Your task to perform on an android device: turn off location Image 0: 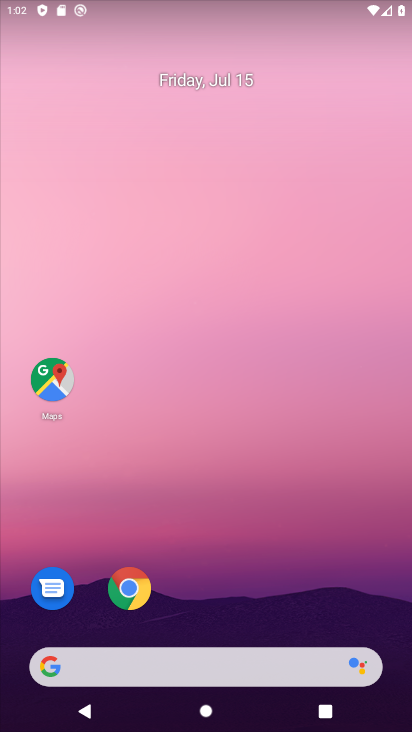
Step 0: drag from (223, 602) to (261, 22)
Your task to perform on an android device: turn off location Image 1: 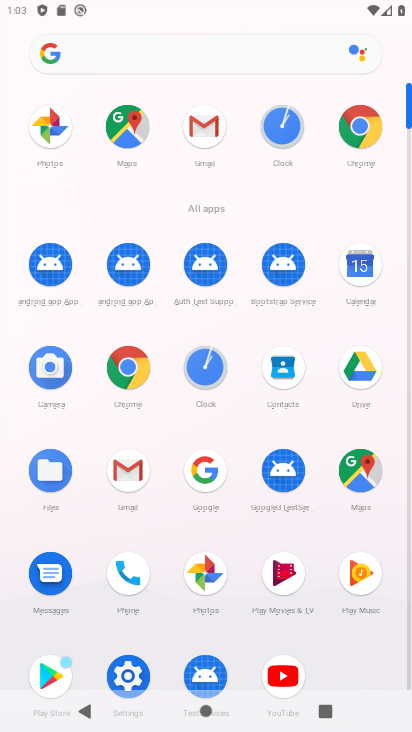
Step 1: click (129, 674)
Your task to perform on an android device: turn off location Image 2: 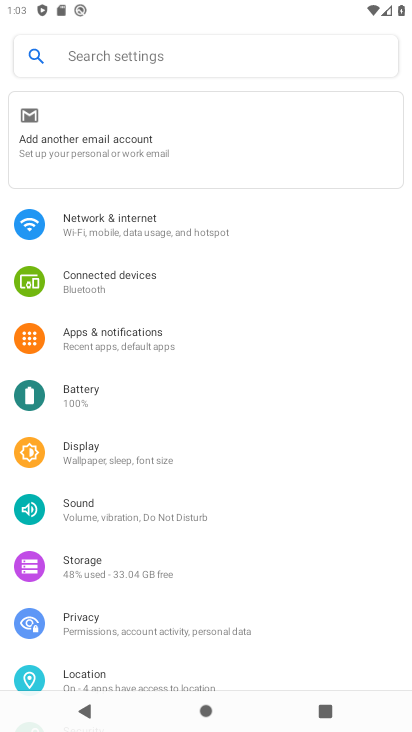
Step 2: click (95, 680)
Your task to perform on an android device: turn off location Image 3: 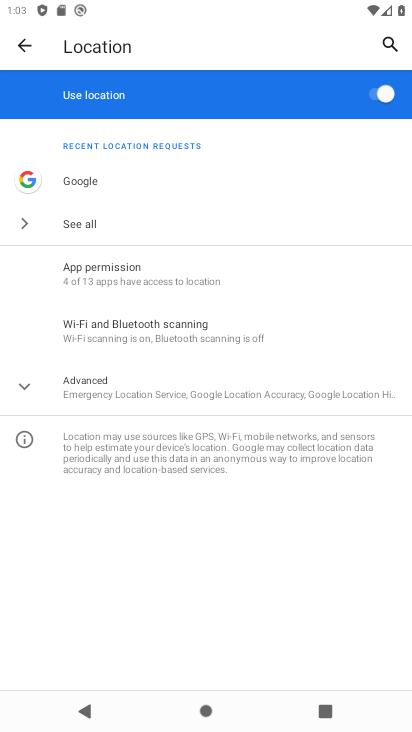
Step 3: click (368, 85)
Your task to perform on an android device: turn off location Image 4: 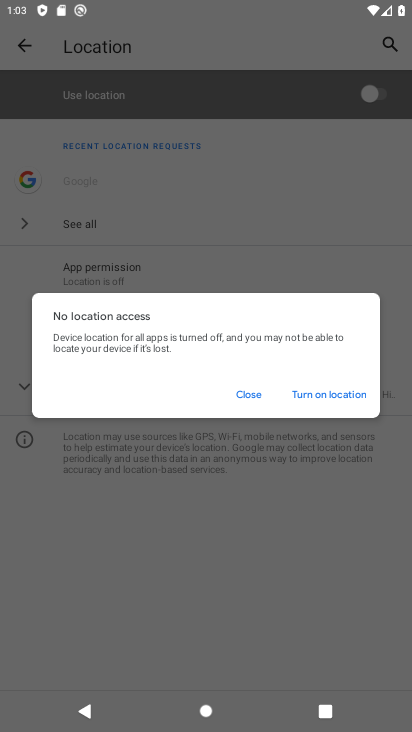
Step 4: task complete